Your task to perform on an android device: Do I have any events today? Image 0: 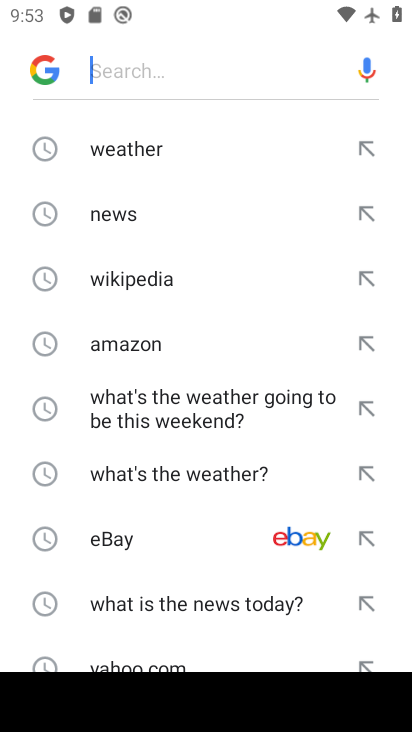
Step 0: press back button
Your task to perform on an android device: Do I have any events today? Image 1: 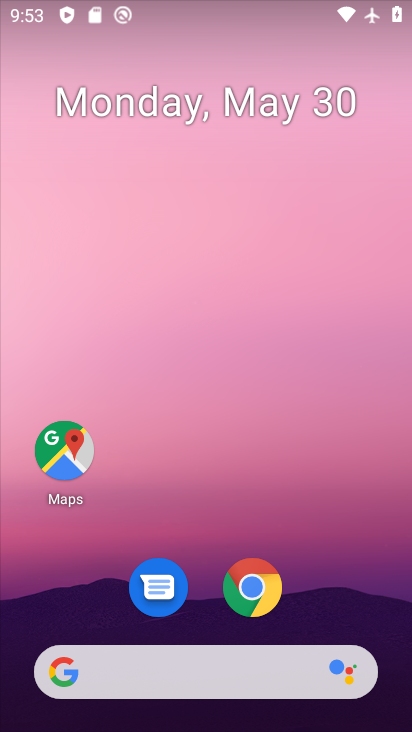
Step 1: drag from (348, 566) to (279, 22)
Your task to perform on an android device: Do I have any events today? Image 2: 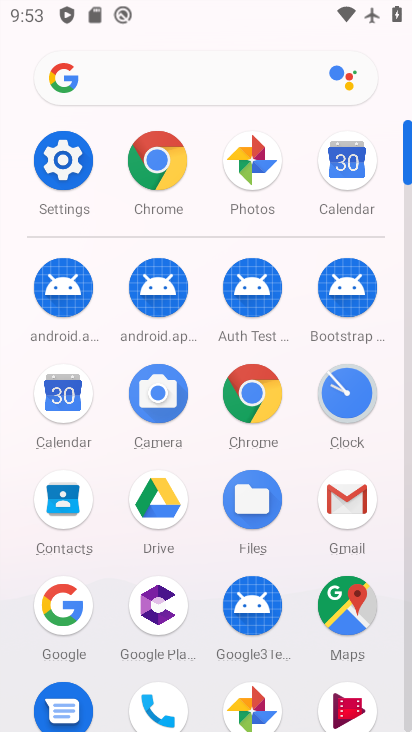
Step 2: drag from (10, 581) to (32, 247)
Your task to perform on an android device: Do I have any events today? Image 3: 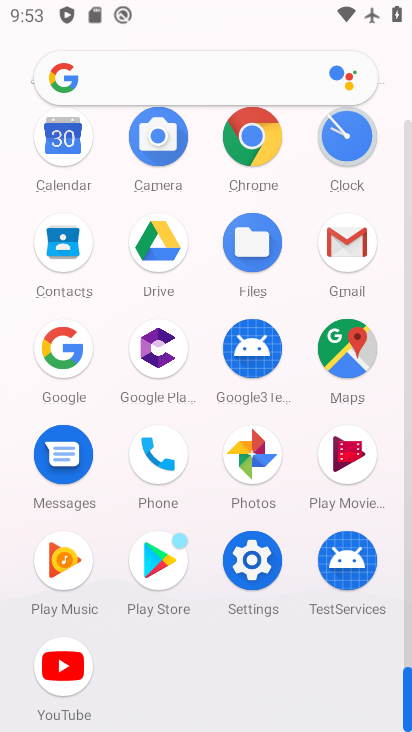
Step 3: click (65, 139)
Your task to perform on an android device: Do I have any events today? Image 4: 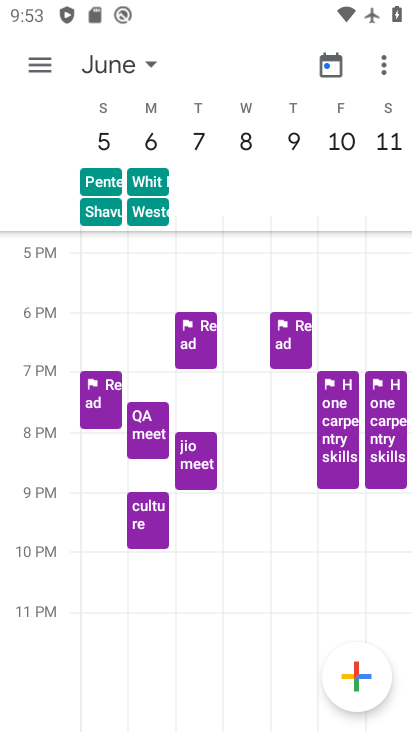
Step 4: click (322, 66)
Your task to perform on an android device: Do I have any events today? Image 5: 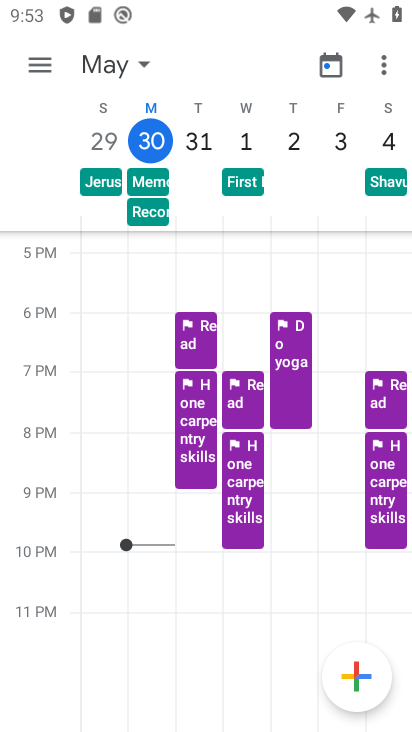
Step 5: task complete